Your task to perform on an android device: open the mobile data screen to see how much data has been used Image 0: 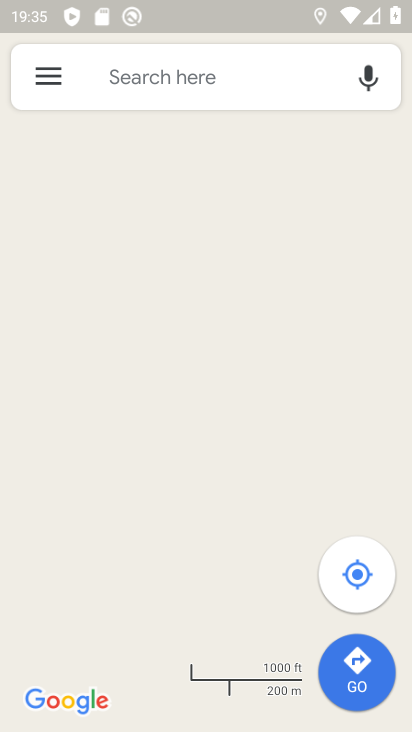
Step 0: press home button
Your task to perform on an android device: open the mobile data screen to see how much data has been used Image 1: 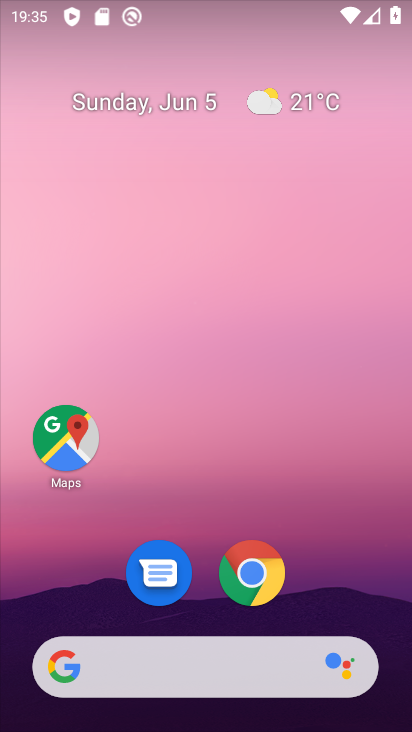
Step 1: drag from (320, 594) to (379, 1)
Your task to perform on an android device: open the mobile data screen to see how much data has been used Image 2: 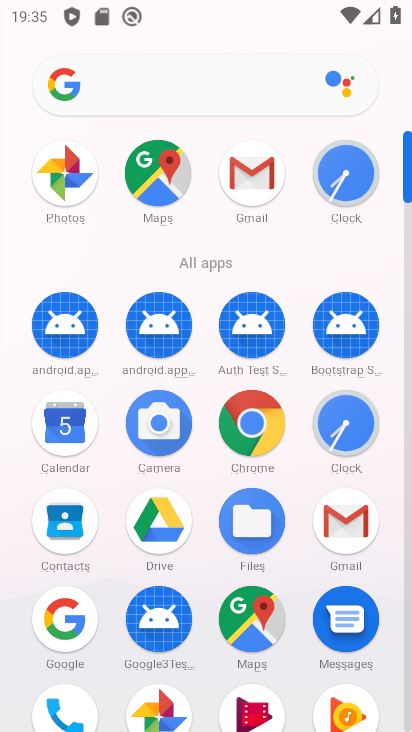
Step 2: drag from (105, 650) to (149, 61)
Your task to perform on an android device: open the mobile data screen to see how much data has been used Image 3: 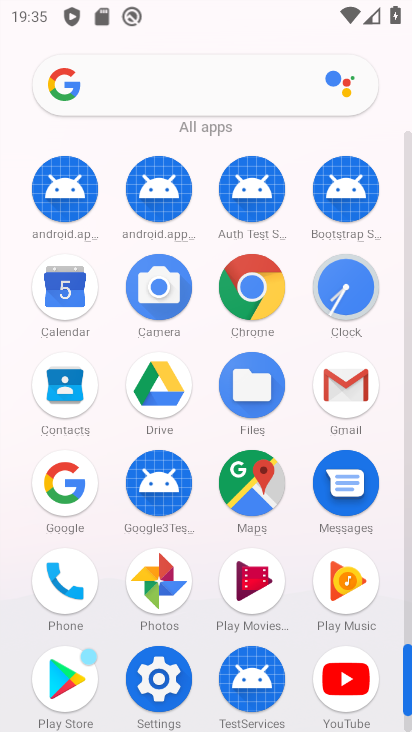
Step 3: click (165, 688)
Your task to perform on an android device: open the mobile data screen to see how much data has been used Image 4: 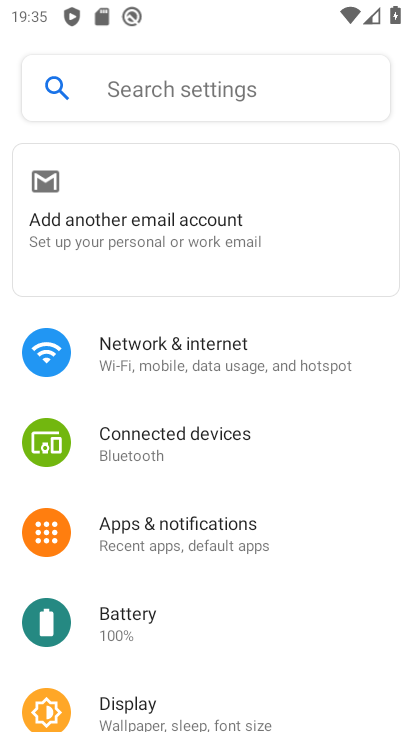
Step 4: click (146, 393)
Your task to perform on an android device: open the mobile data screen to see how much data has been used Image 5: 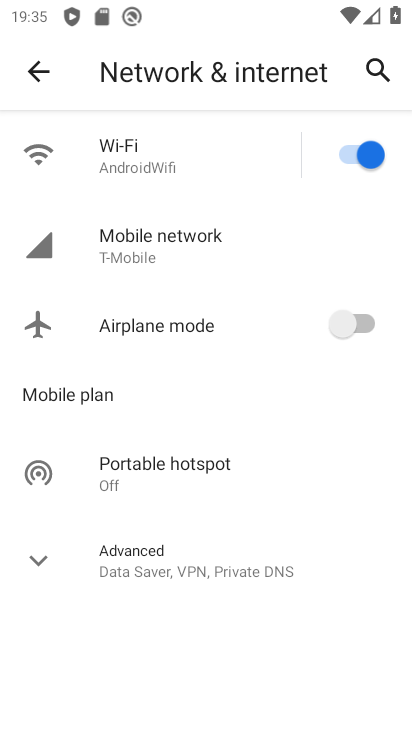
Step 5: click (193, 235)
Your task to perform on an android device: open the mobile data screen to see how much data has been used Image 6: 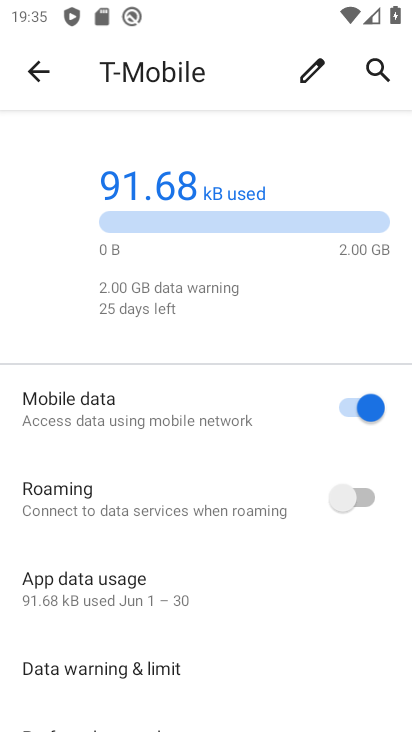
Step 6: click (174, 583)
Your task to perform on an android device: open the mobile data screen to see how much data has been used Image 7: 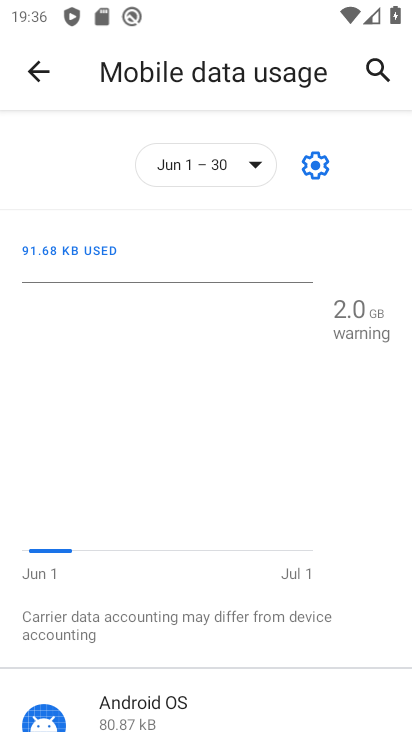
Step 7: task complete